Your task to perform on an android device: read, delete, or share a saved page in the chrome app Image 0: 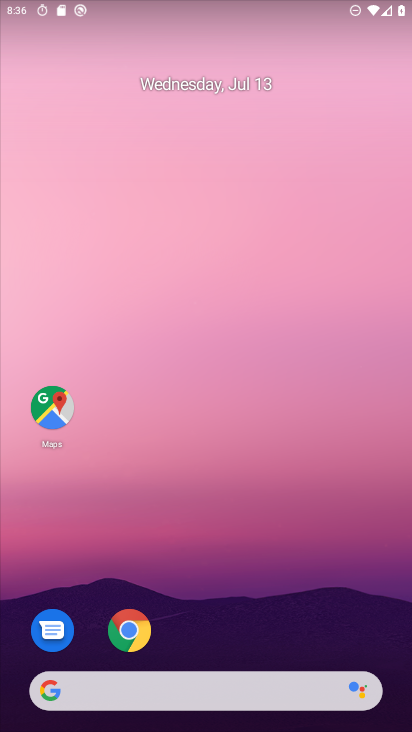
Step 0: drag from (388, 661) to (280, 32)
Your task to perform on an android device: read, delete, or share a saved page in the chrome app Image 1: 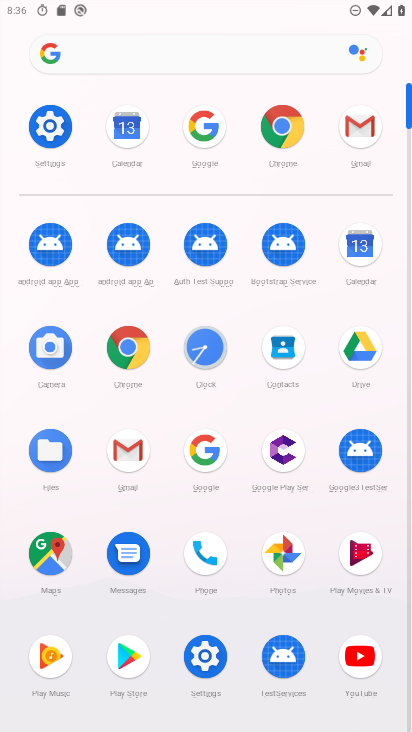
Step 1: click (128, 342)
Your task to perform on an android device: read, delete, or share a saved page in the chrome app Image 2: 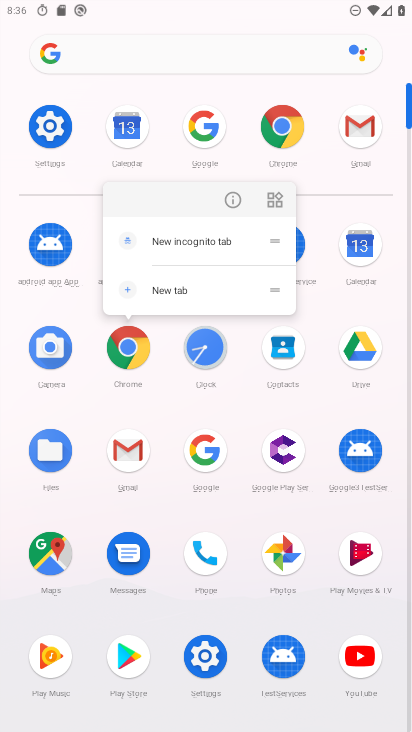
Step 2: click (128, 342)
Your task to perform on an android device: read, delete, or share a saved page in the chrome app Image 3: 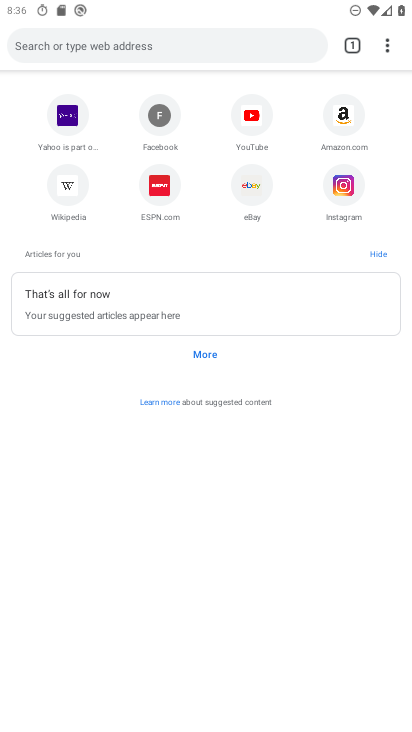
Step 3: task complete